Your task to perform on an android device: open app "Facebook" (install if not already installed) and enter user name: "resultants@gmail.com" and password: "earned" Image 0: 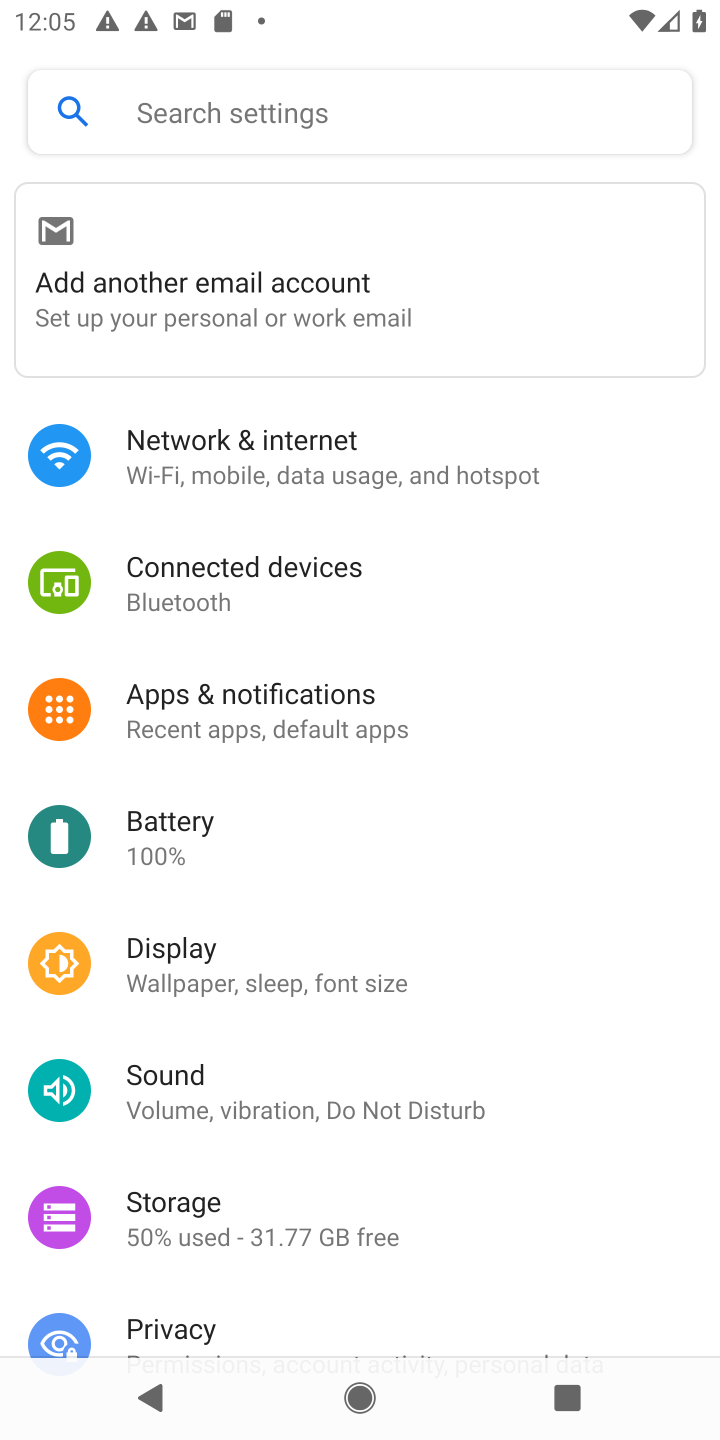
Step 0: press home button
Your task to perform on an android device: open app "Facebook" (install if not already installed) and enter user name: "resultants@gmail.com" and password: "earned" Image 1: 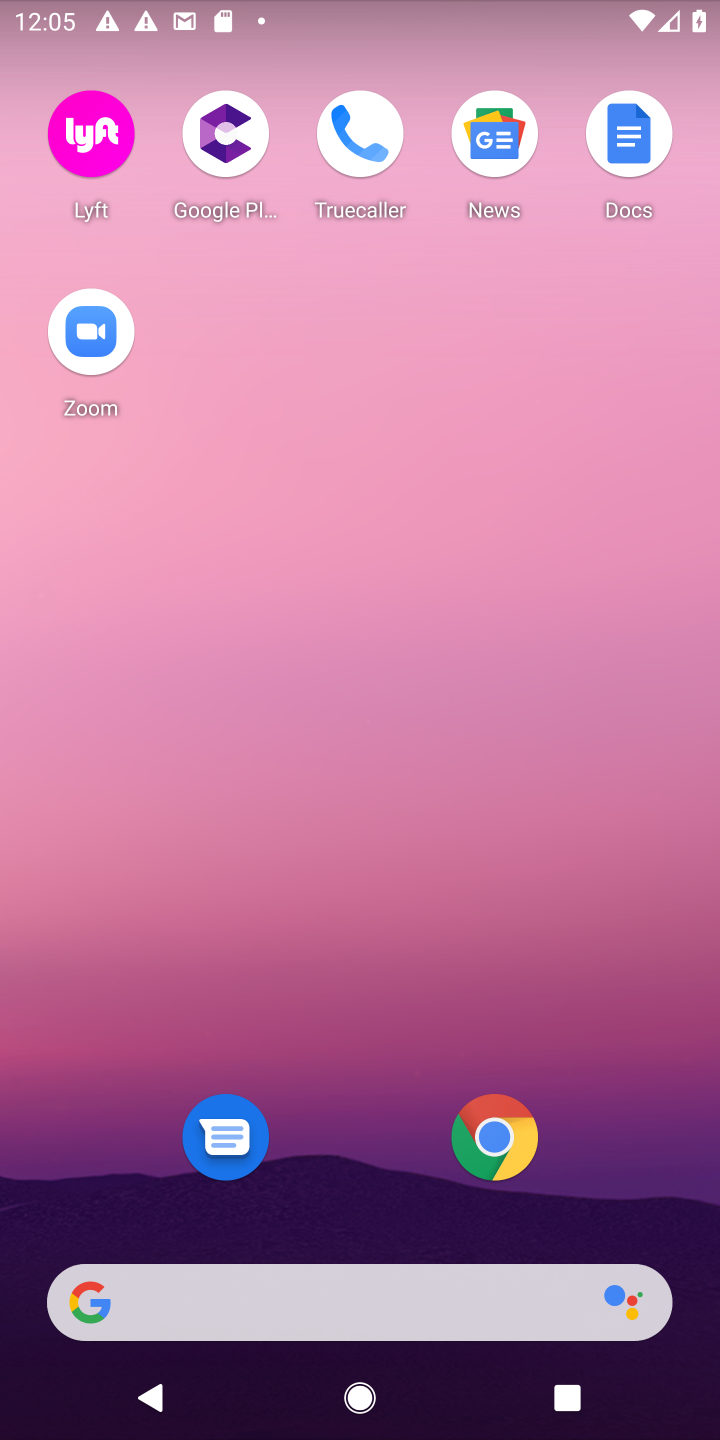
Step 1: drag from (349, 1192) to (414, 409)
Your task to perform on an android device: open app "Facebook" (install if not already installed) and enter user name: "resultants@gmail.com" and password: "earned" Image 2: 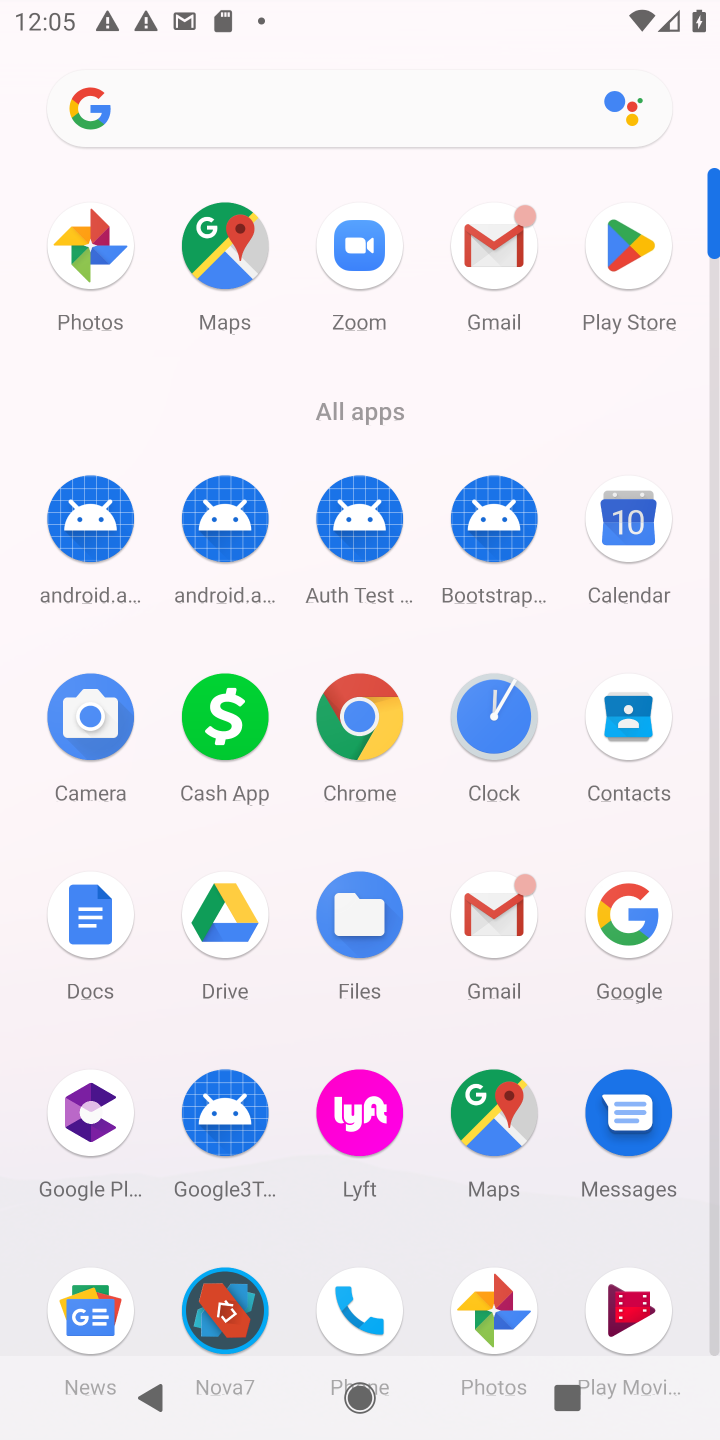
Step 2: click (632, 242)
Your task to perform on an android device: open app "Facebook" (install if not already installed) and enter user name: "resultants@gmail.com" and password: "earned" Image 3: 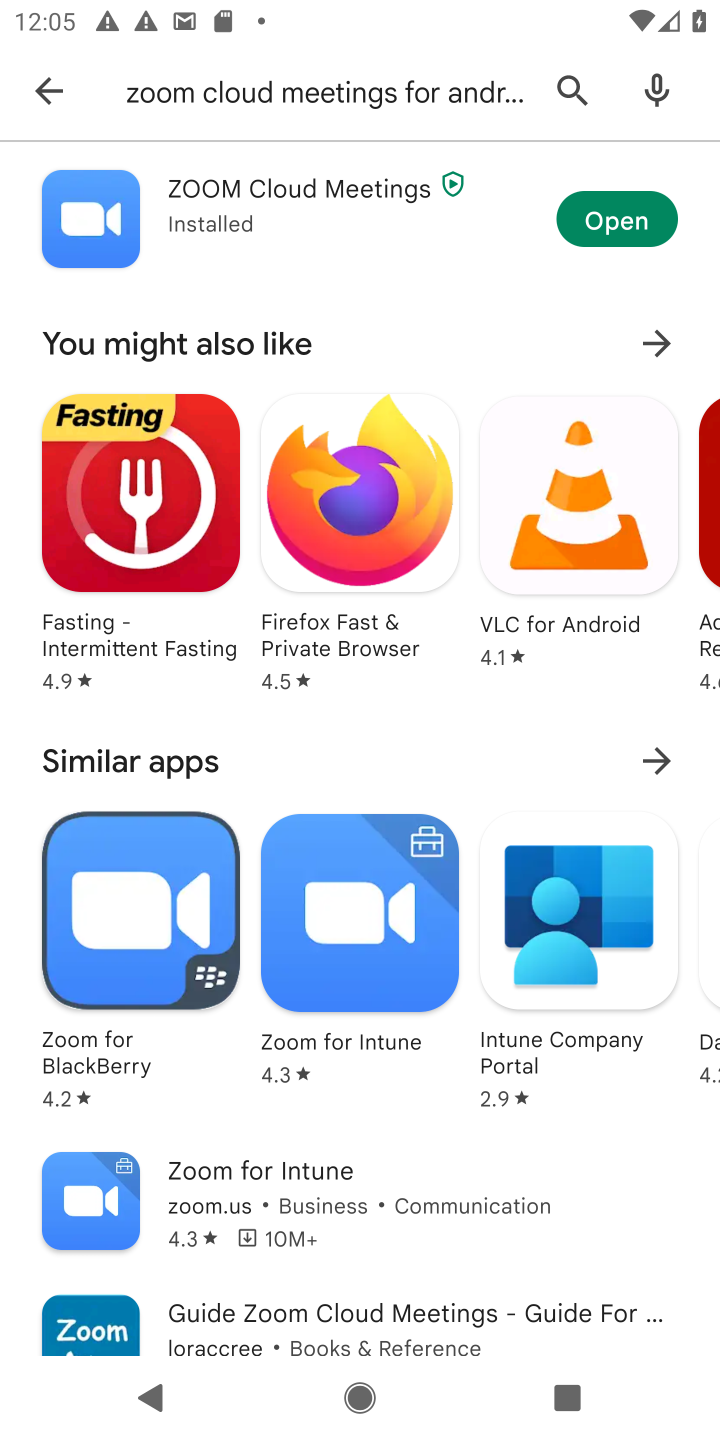
Step 3: click (567, 86)
Your task to perform on an android device: open app "Facebook" (install if not already installed) and enter user name: "resultants@gmail.com" and password: "earned" Image 4: 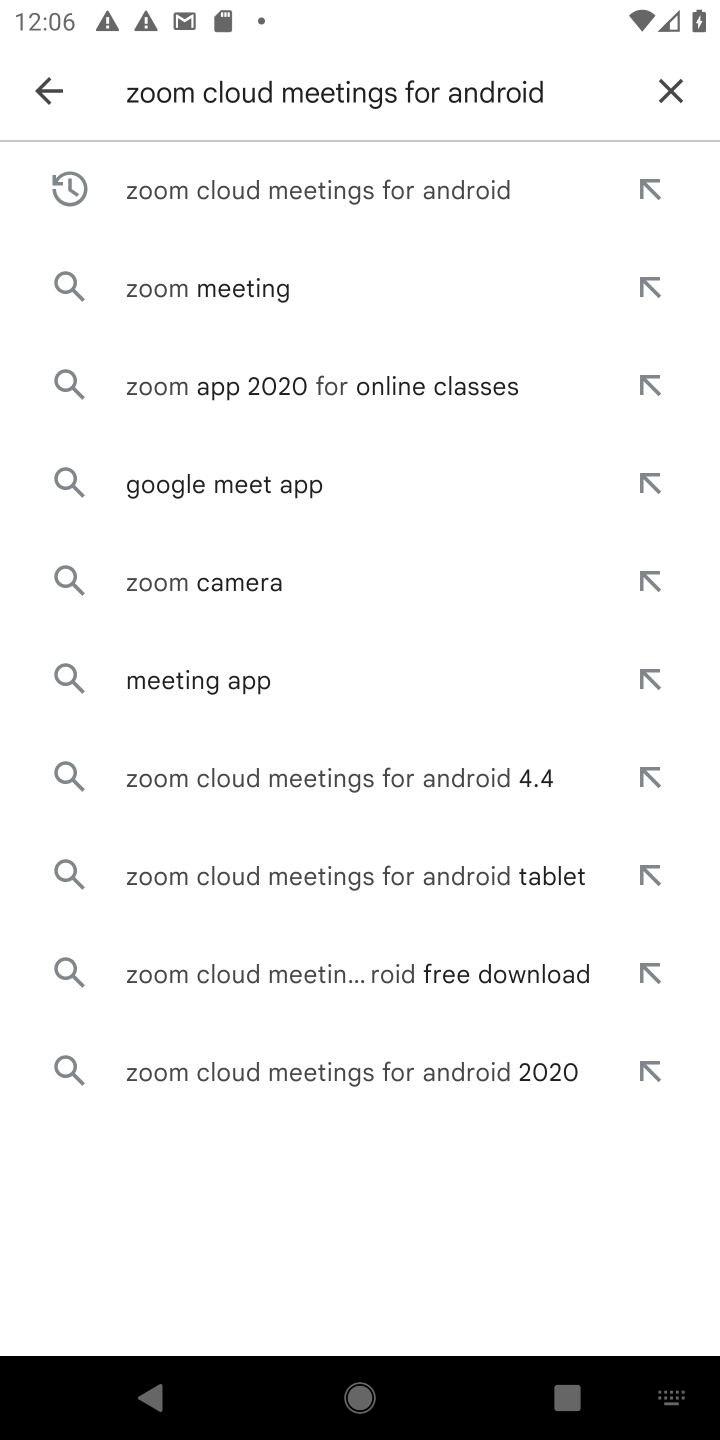
Step 4: click (664, 88)
Your task to perform on an android device: open app "Facebook" (install if not already installed) and enter user name: "resultants@gmail.com" and password: "earned" Image 5: 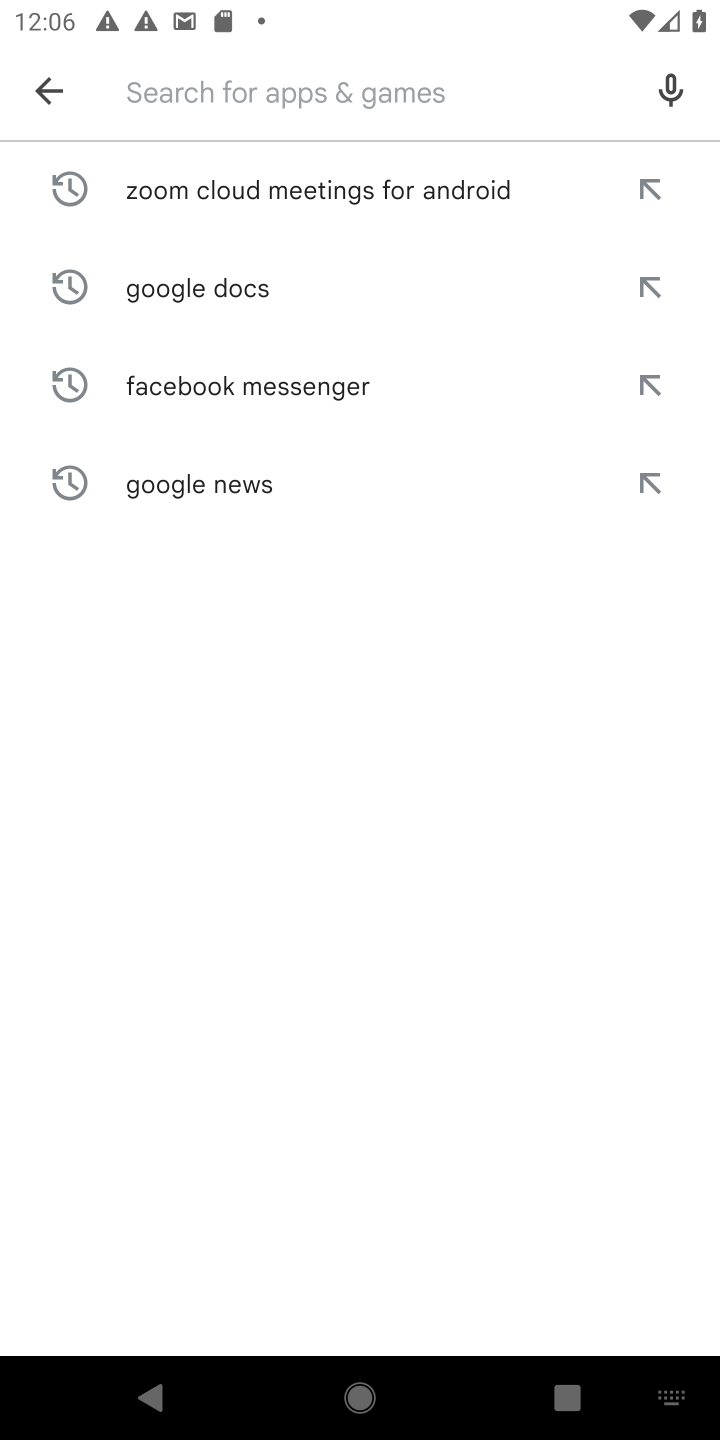
Step 5: type "Facebook"
Your task to perform on an android device: open app "Facebook" (install if not already installed) and enter user name: "resultants@gmail.com" and password: "earned" Image 6: 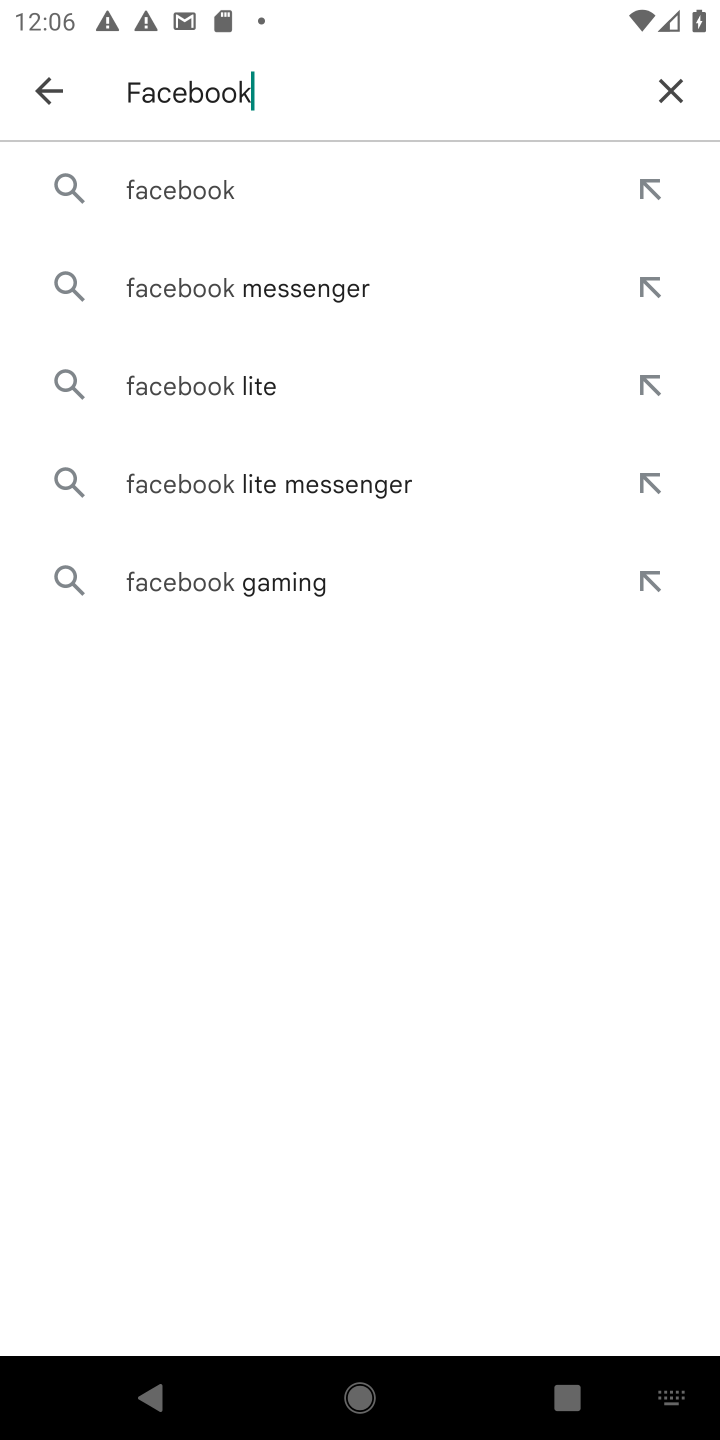
Step 6: click (203, 197)
Your task to perform on an android device: open app "Facebook" (install if not already installed) and enter user name: "resultants@gmail.com" and password: "earned" Image 7: 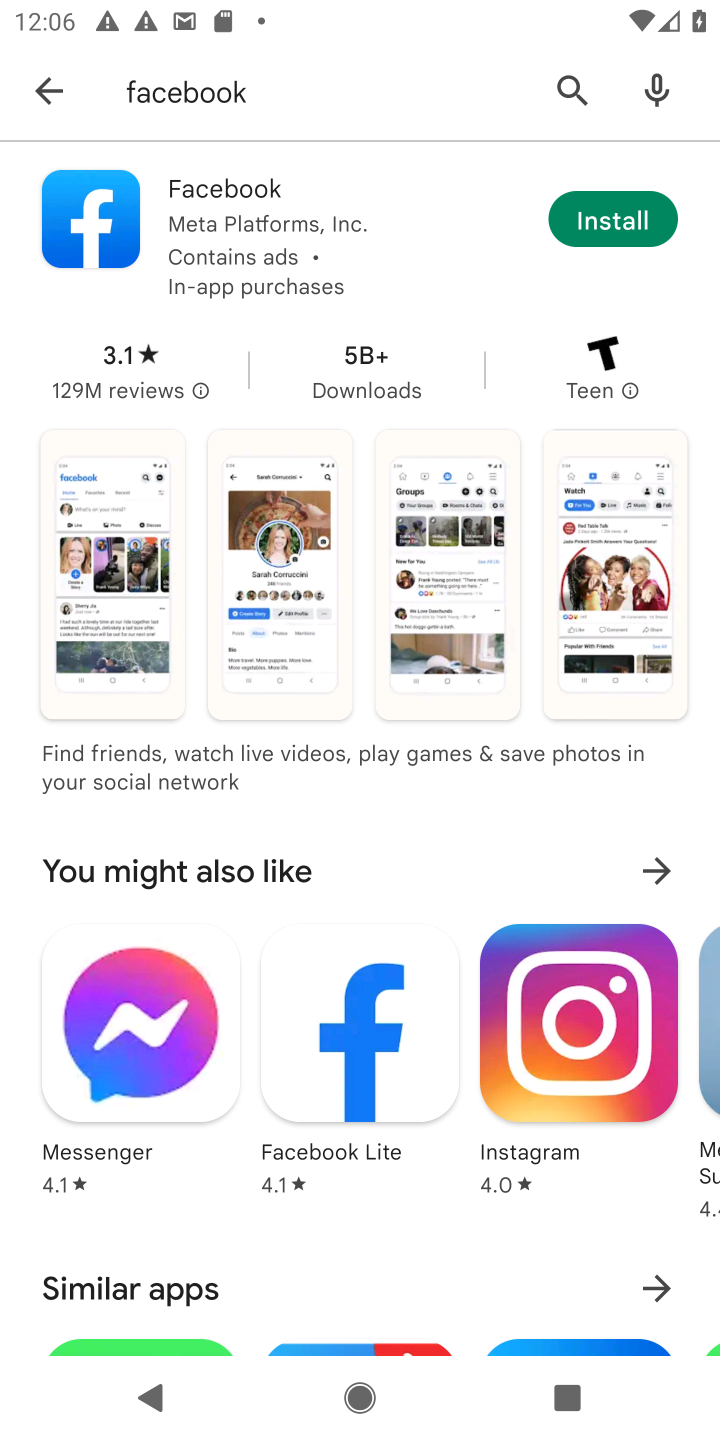
Step 7: click (606, 216)
Your task to perform on an android device: open app "Facebook" (install if not already installed) and enter user name: "resultants@gmail.com" and password: "earned" Image 8: 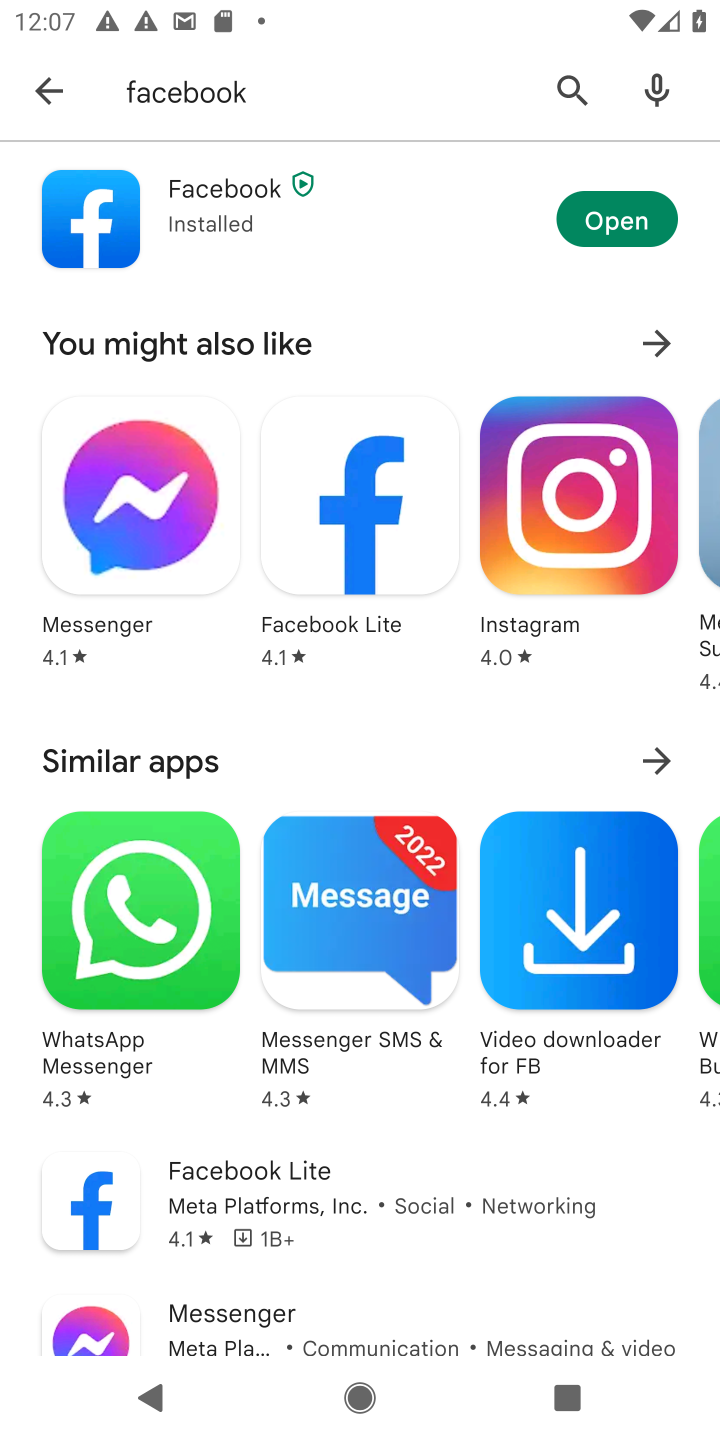
Step 8: click (606, 216)
Your task to perform on an android device: open app "Facebook" (install if not already installed) and enter user name: "resultants@gmail.com" and password: "earned" Image 9: 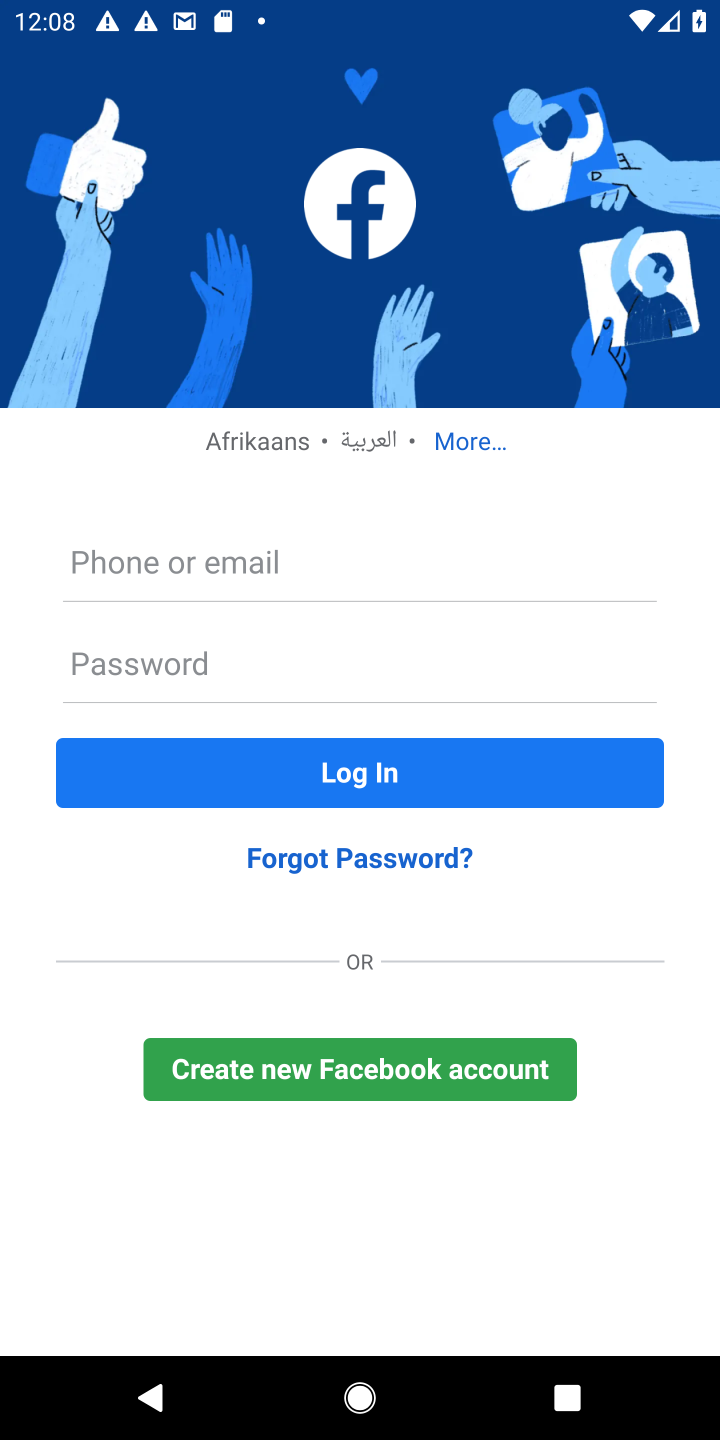
Step 9: click (269, 547)
Your task to perform on an android device: open app "Facebook" (install if not already installed) and enter user name: "resultants@gmail.com" and password: "earned" Image 10: 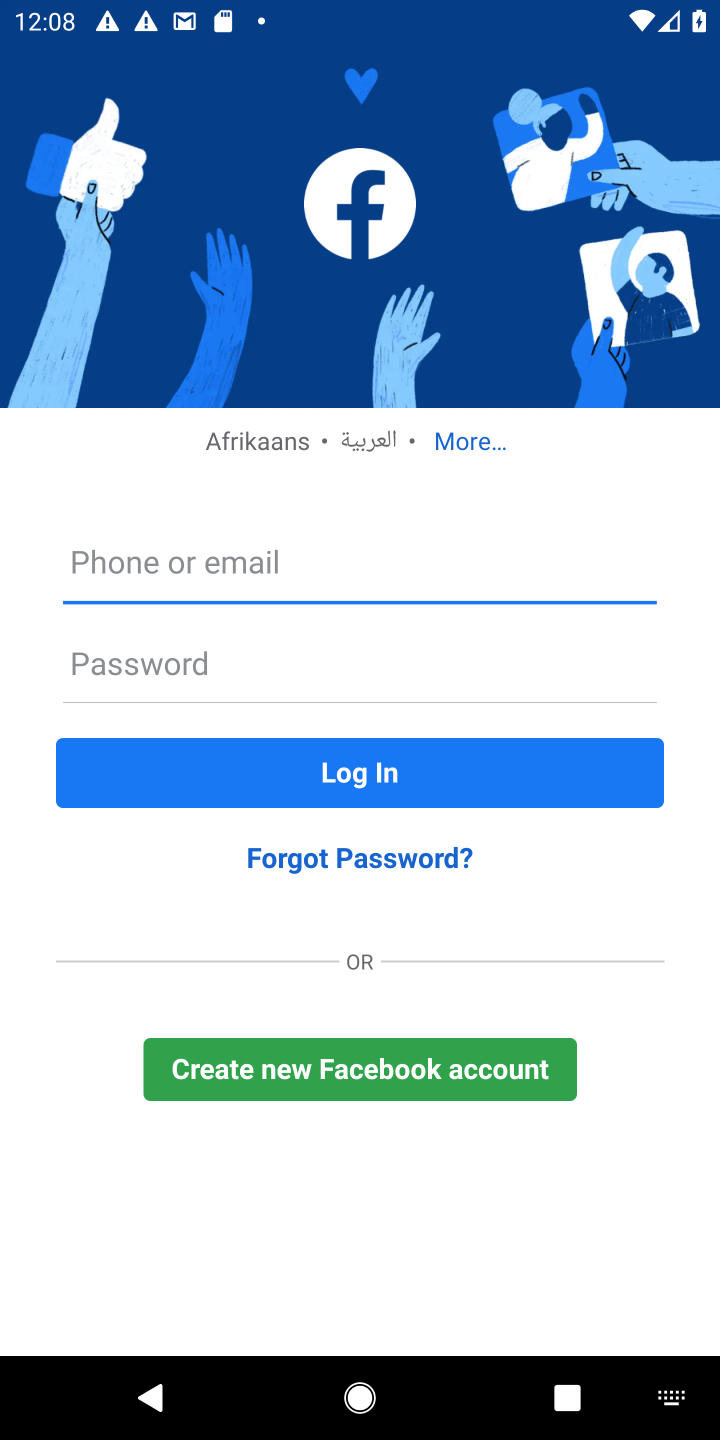
Step 10: type "resultants@gmail.com"
Your task to perform on an android device: open app "Facebook" (install if not already installed) and enter user name: "resultants@gmail.com" and password: "earned" Image 11: 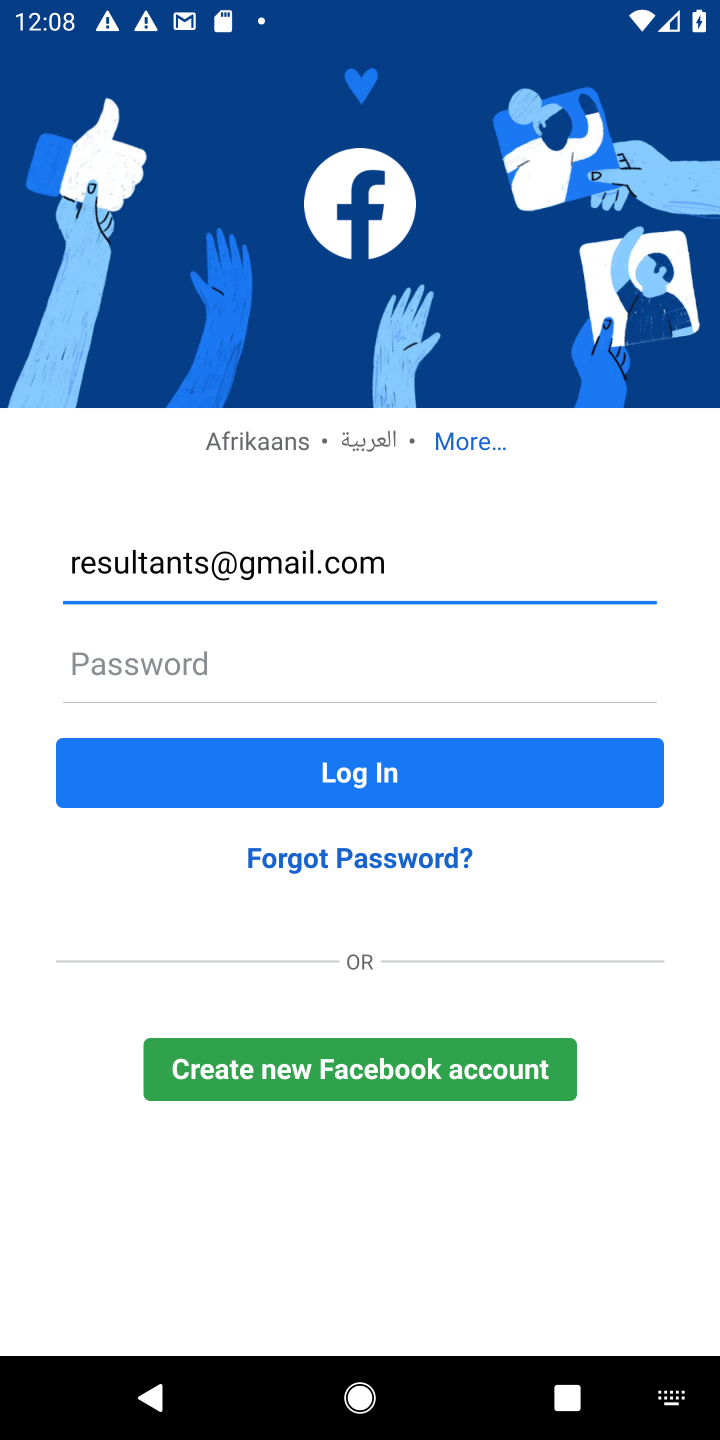
Step 11: click (167, 667)
Your task to perform on an android device: open app "Facebook" (install if not already installed) and enter user name: "resultants@gmail.com" and password: "earned" Image 12: 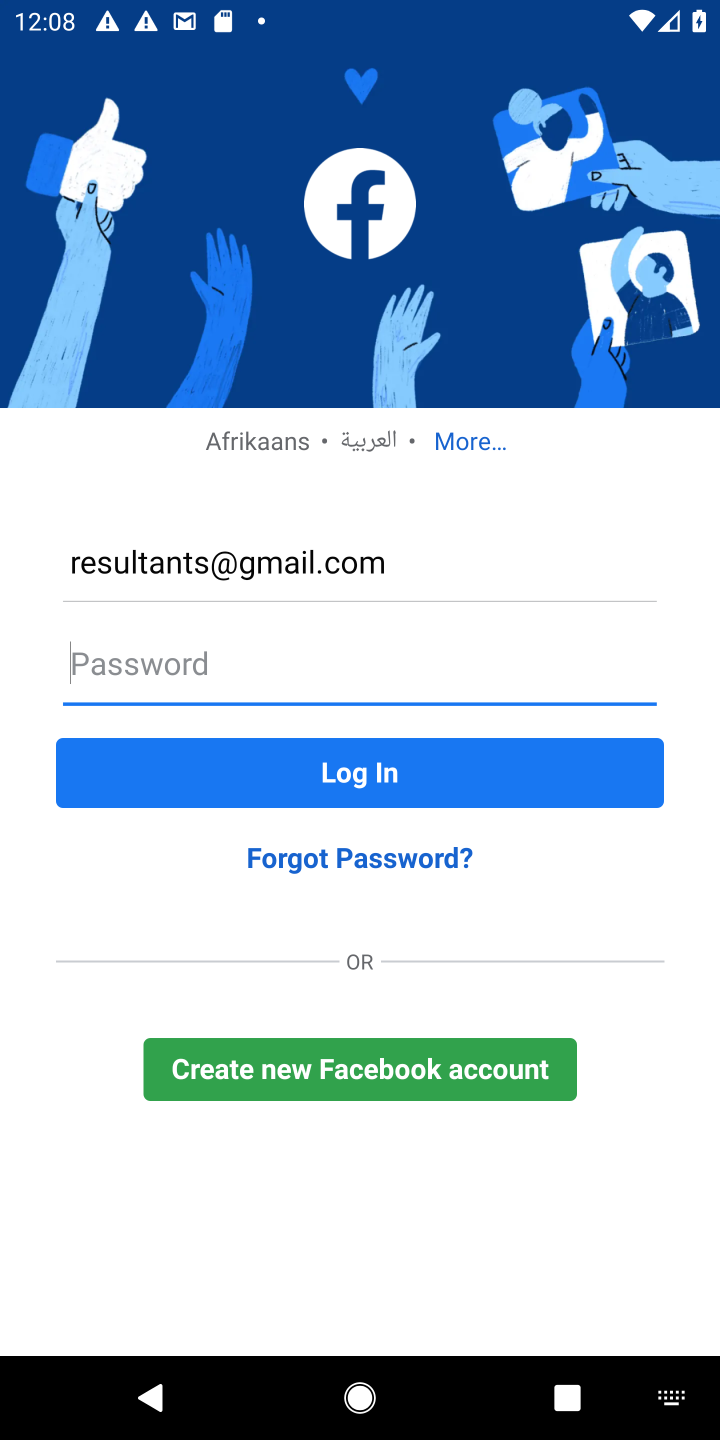
Step 12: type "earned"
Your task to perform on an android device: open app "Facebook" (install if not already installed) and enter user name: "resultants@gmail.com" and password: "earned" Image 13: 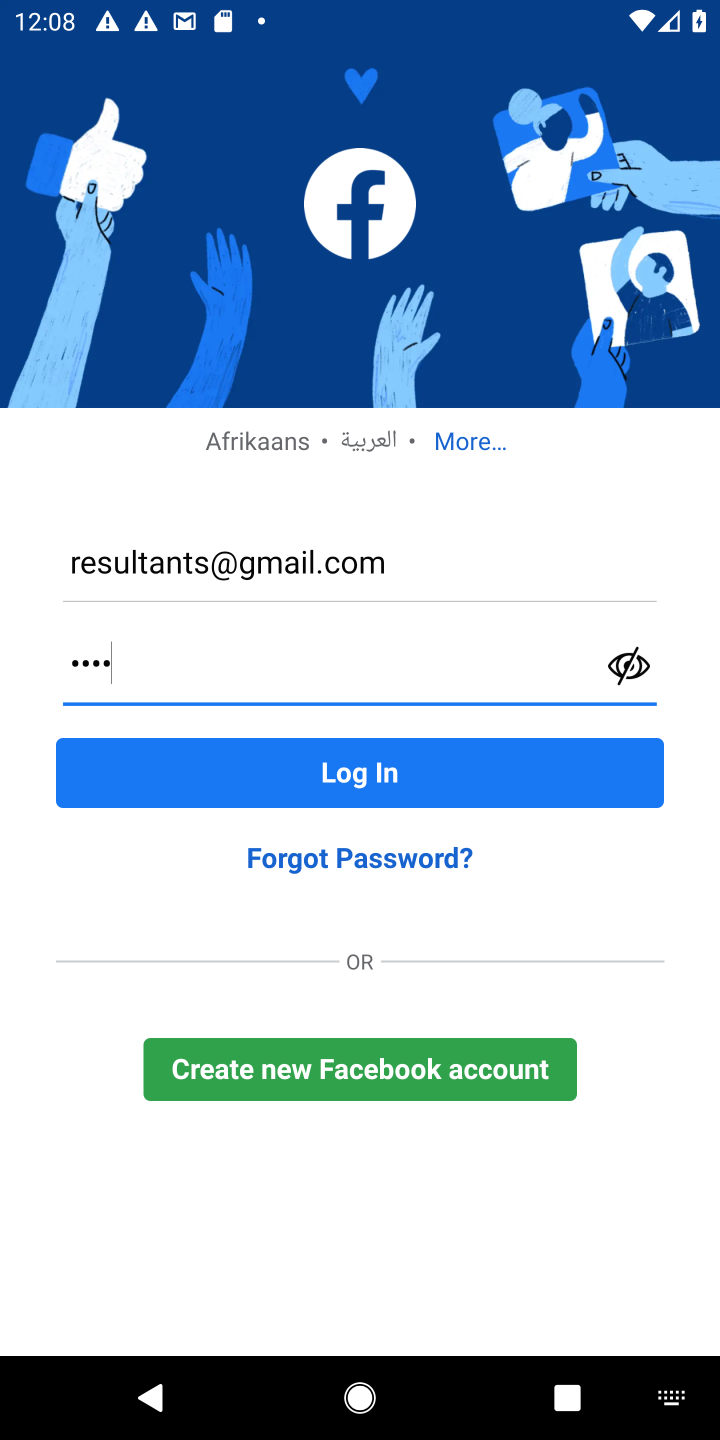
Step 13: click (506, 773)
Your task to perform on an android device: open app "Facebook" (install if not already installed) and enter user name: "resultants@gmail.com" and password: "earned" Image 14: 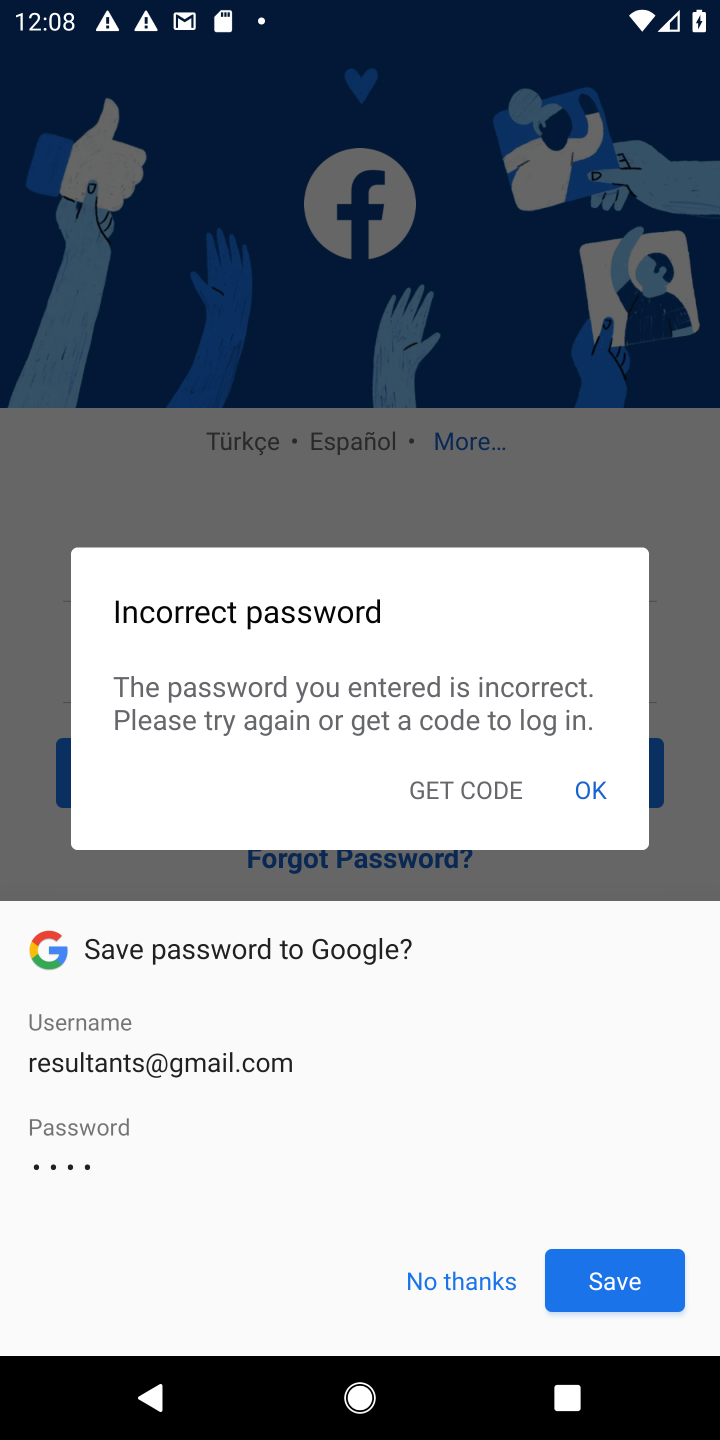
Step 14: click (467, 1292)
Your task to perform on an android device: open app "Facebook" (install if not already installed) and enter user name: "resultants@gmail.com" and password: "earned" Image 15: 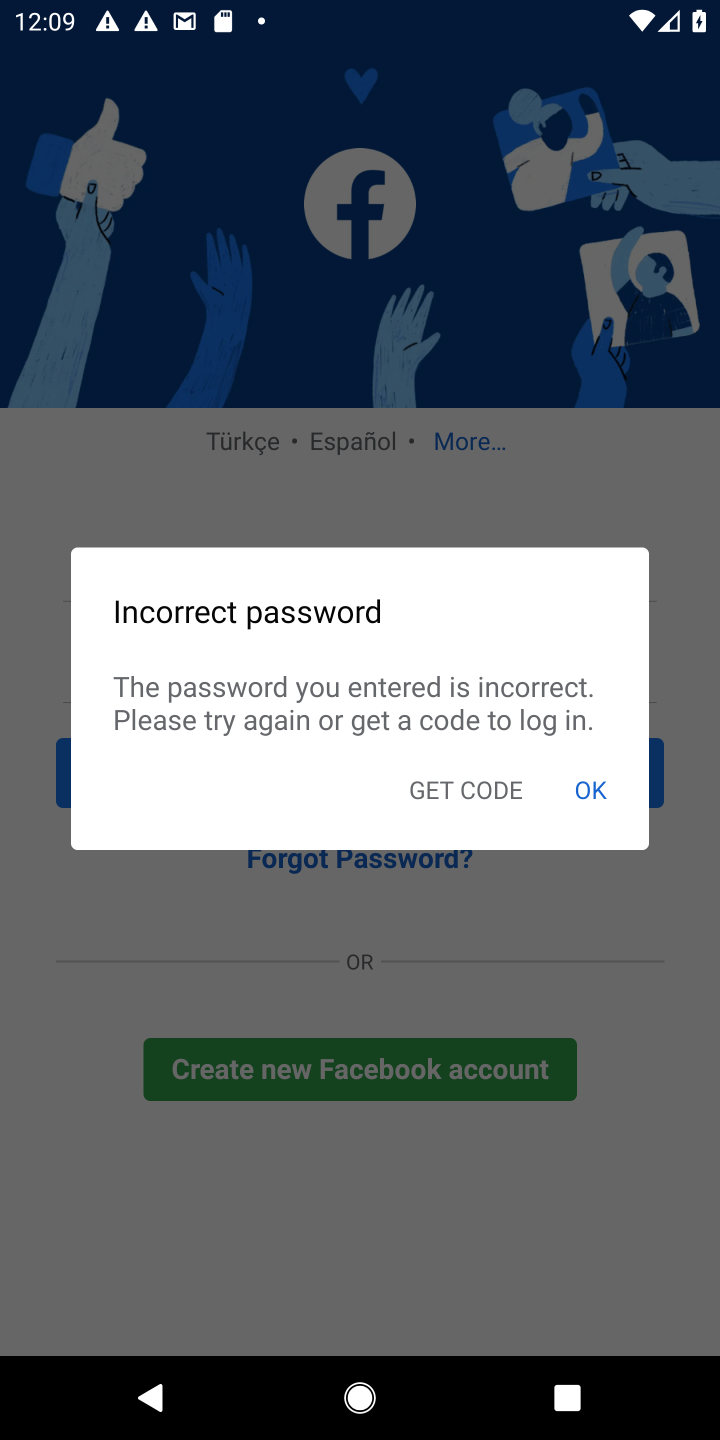
Step 15: task complete